Your task to perform on an android device: Empty the shopping cart on costco. Add macbook pro 13 inch to the cart on costco Image 0: 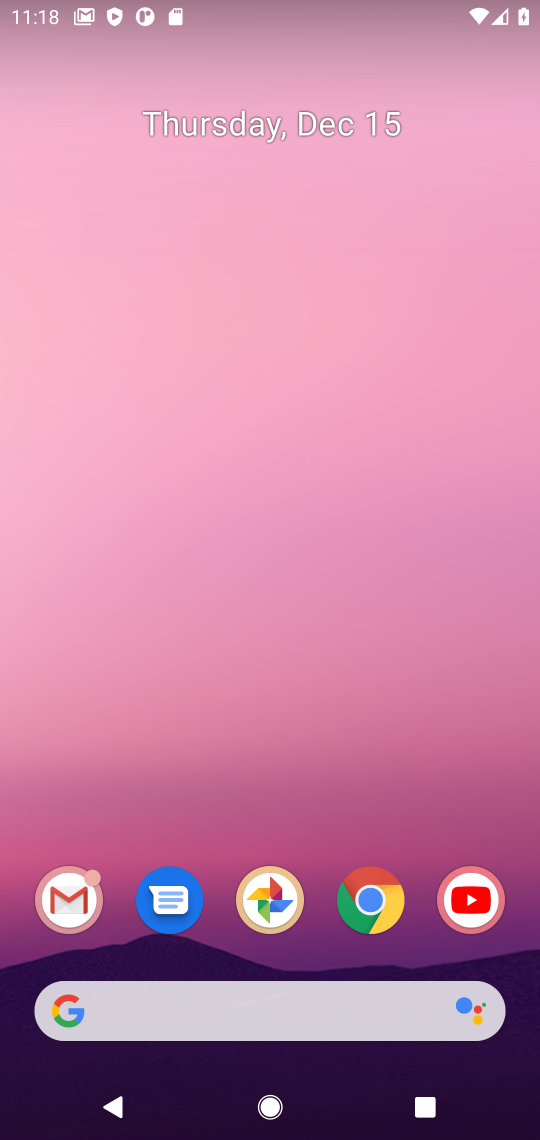
Step 0: click (394, 887)
Your task to perform on an android device: Empty the shopping cart on costco. Add macbook pro 13 inch to the cart on costco Image 1: 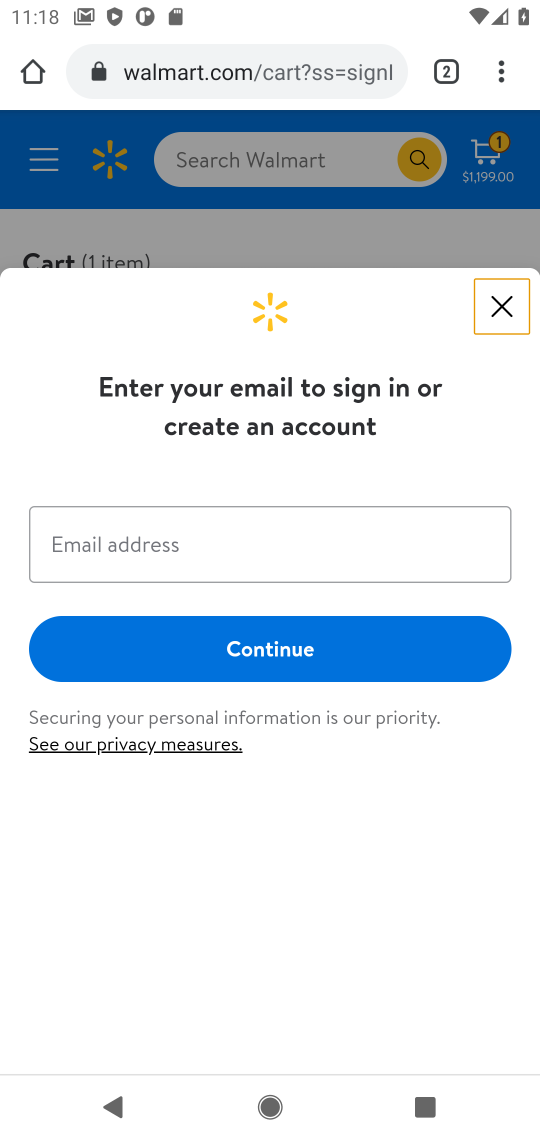
Step 1: click (506, 307)
Your task to perform on an android device: Empty the shopping cart on costco. Add macbook pro 13 inch to the cart on costco Image 2: 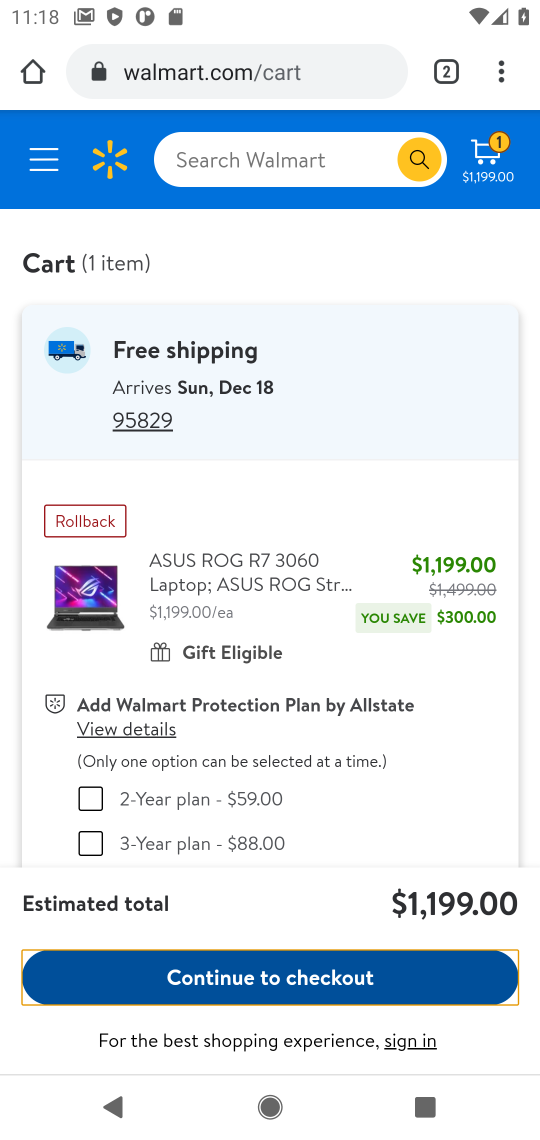
Step 2: click (276, 164)
Your task to perform on an android device: Empty the shopping cart on costco. Add macbook pro 13 inch to the cart on costco Image 3: 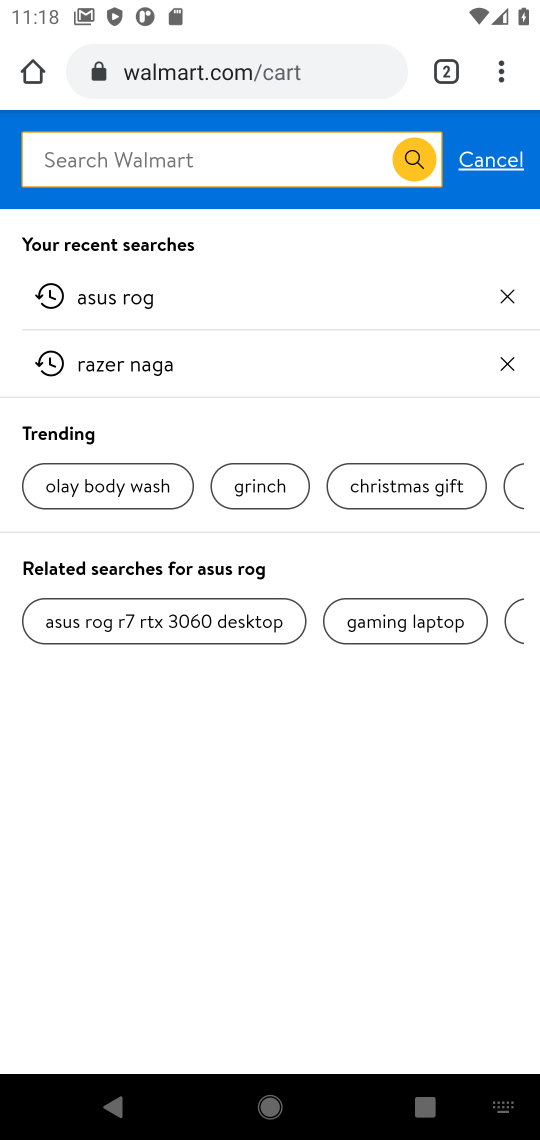
Step 3: click (294, 59)
Your task to perform on an android device: Empty the shopping cart on costco. Add macbook pro 13 inch to the cart on costco Image 4: 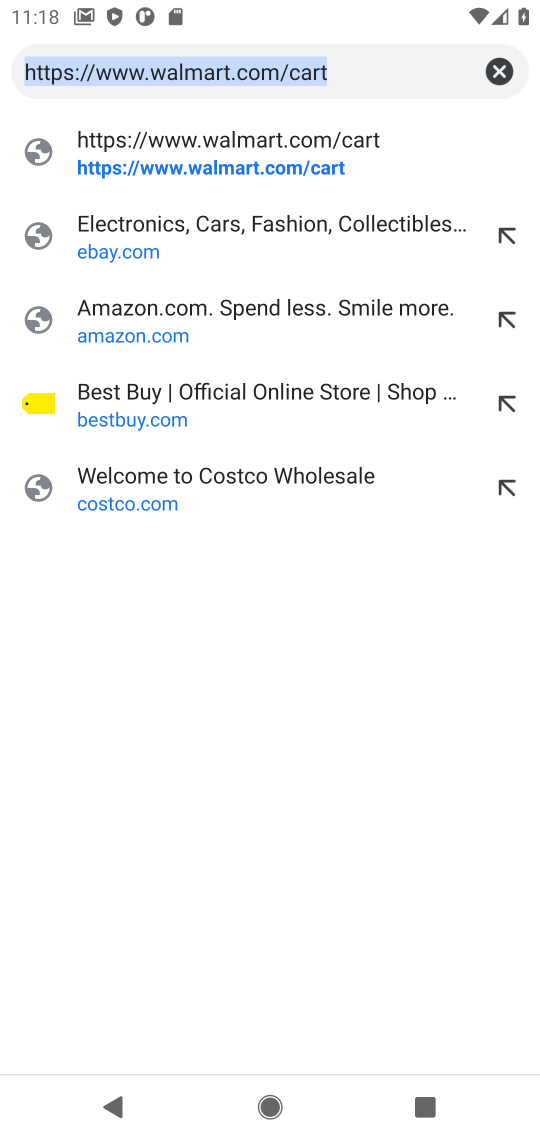
Step 4: click (281, 482)
Your task to perform on an android device: Empty the shopping cart on costco. Add macbook pro 13 inch to the cart on costco Image 5: 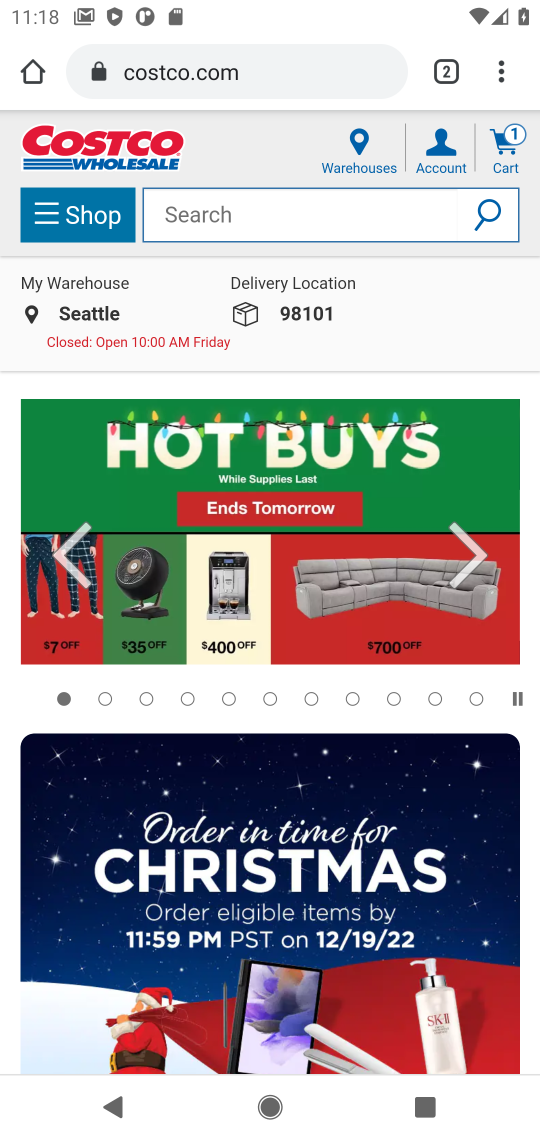
Step 5: click (380, 229)
Your task to perform on an android device: Empty the shopping cart on costco. Add macbook pro 13 inch to the cart on costco Image 6: 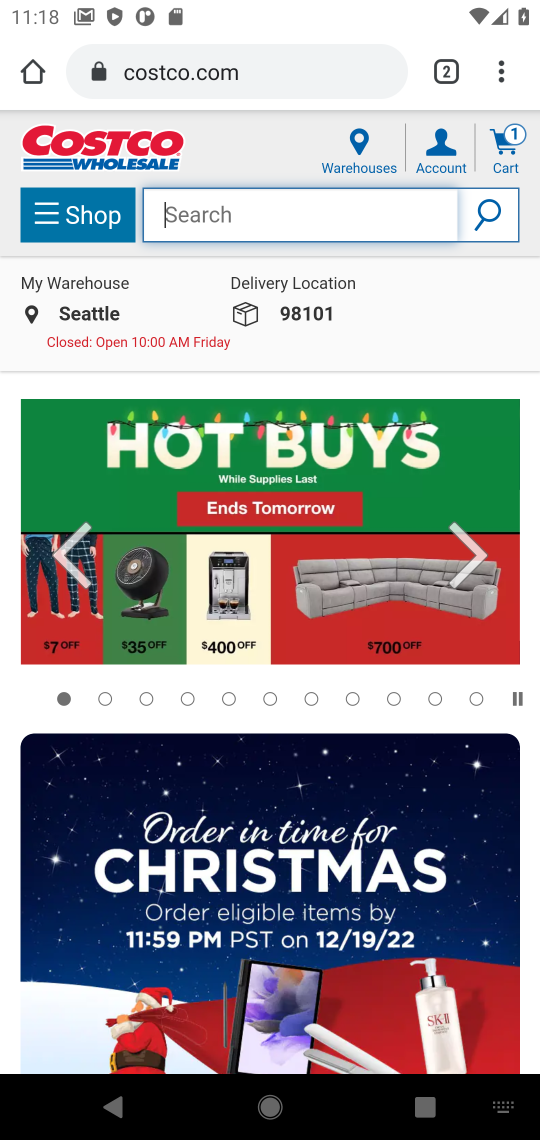
Step 6: click (514, 154)
Your task to perform on an android device: Empty the shopping cart on costco. Add macbook pro 13 inch to the cart on costco Image 7: 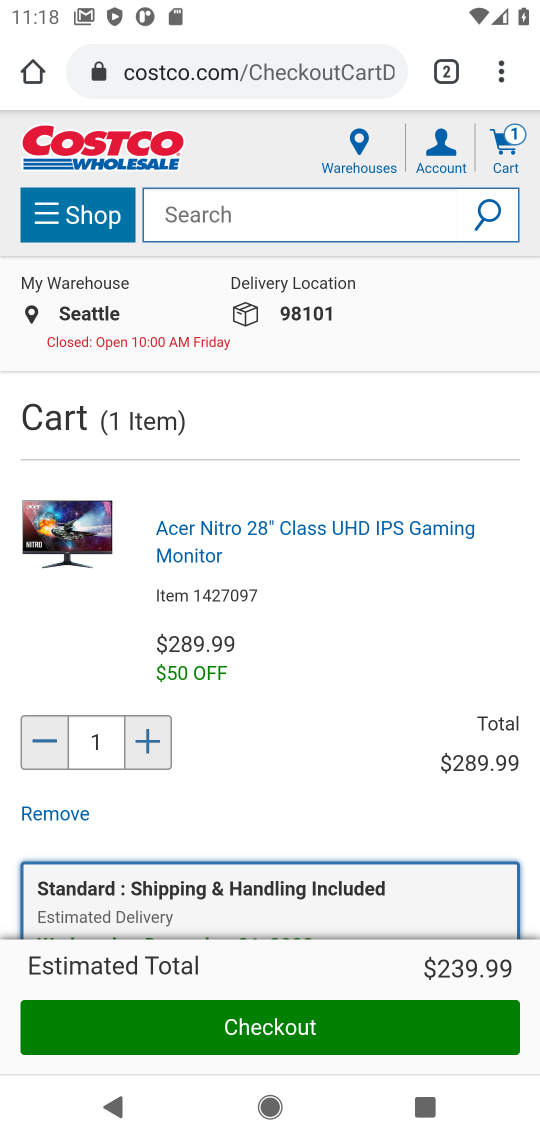
Step 7: drag from (234, 761) to (168, 377)
Your task to perform on an android device: Empty the shopping cart on costco. Add macbook pro 13 inch to the cart on costco Image 8: 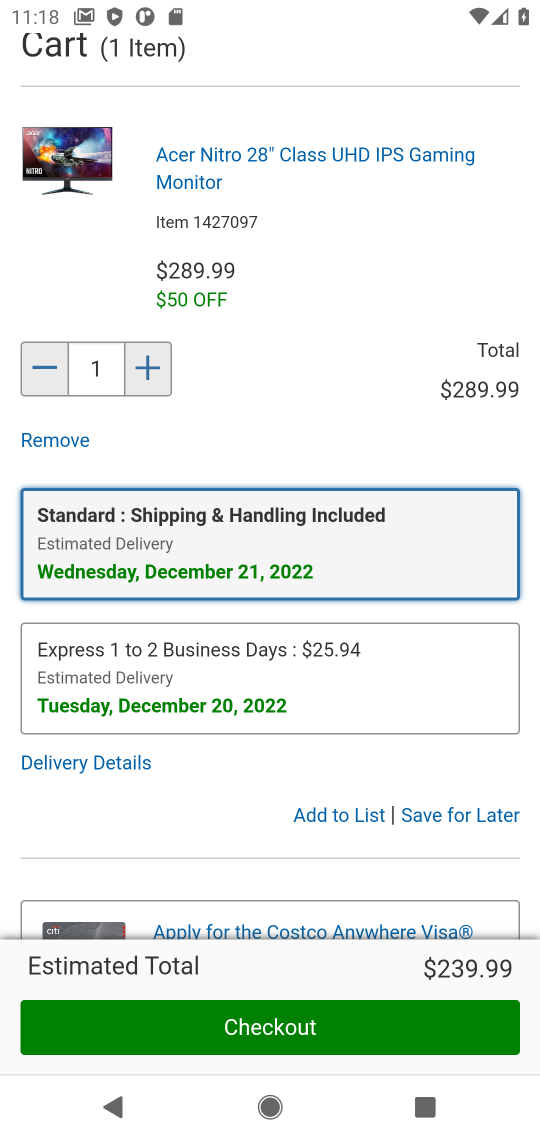
Step 8: click (53, 442)
Your task to perform on an android device: Empty the shopping cart on costco. Add macbook pro 13 inch to the cart on costco Image 9: 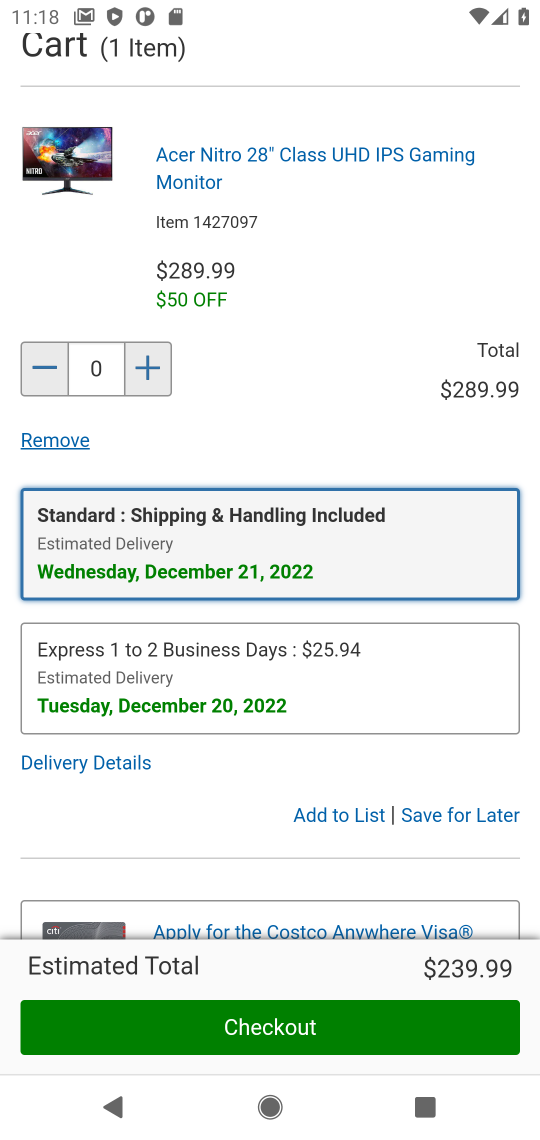
Step 9: click (473, 810)
Your task to perform on an android device: Empty the shopping cart on costco. Add macbook pro 13 inch to the cart on costco Image 10: 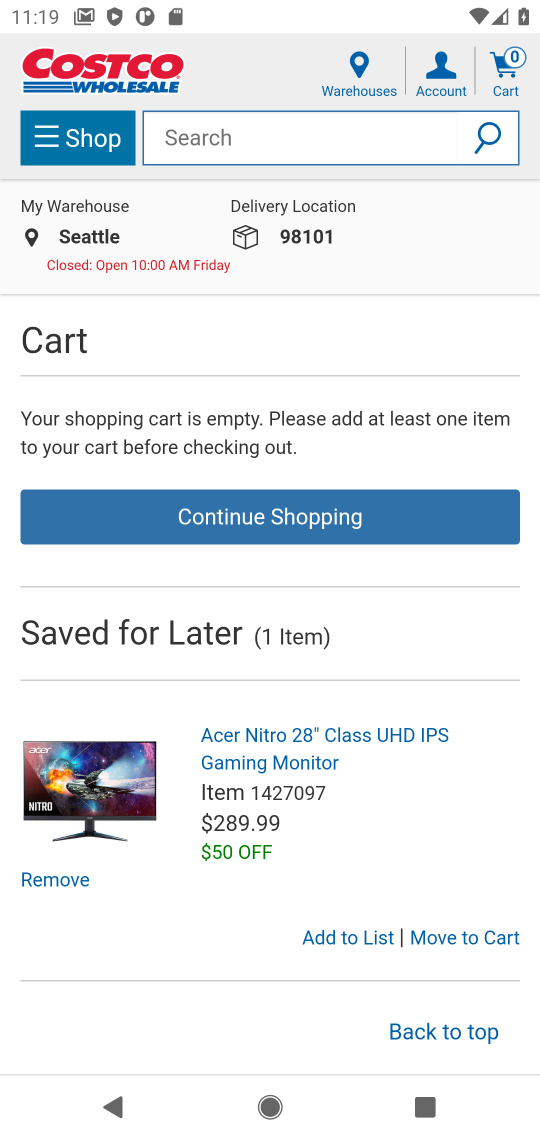
Step 10: click (339, 118)
Your task to perform on an android device: Empty the shopping cart on costco. Add macbook pro 13 inch to the cart on costco Image 11: 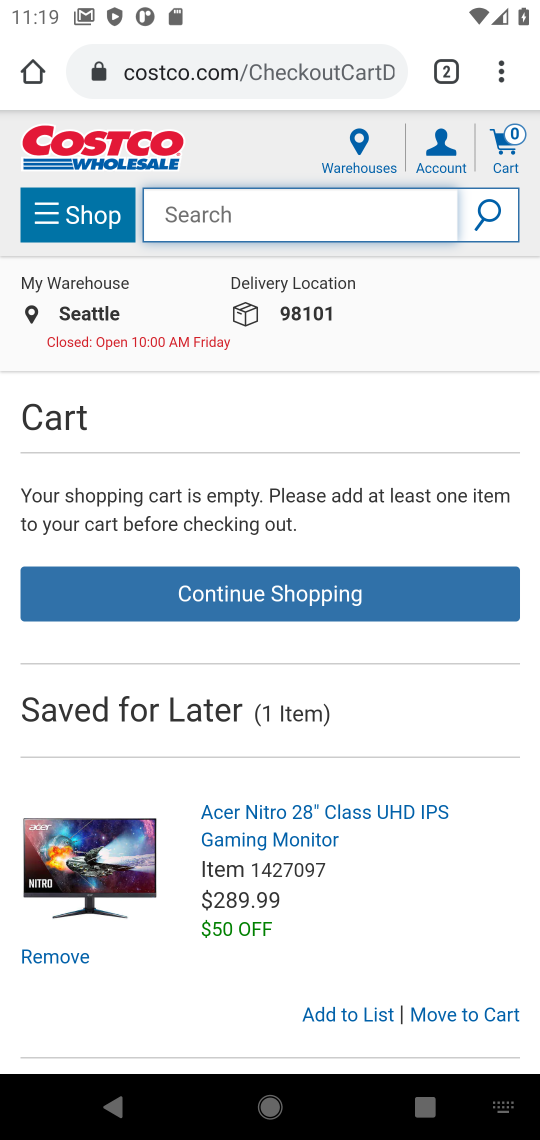
Step 11: press enter
Your task to perform on an android device: Empty the shopping cart on costco. Add macbook pro 13 inch to the cart on costco Image 12: 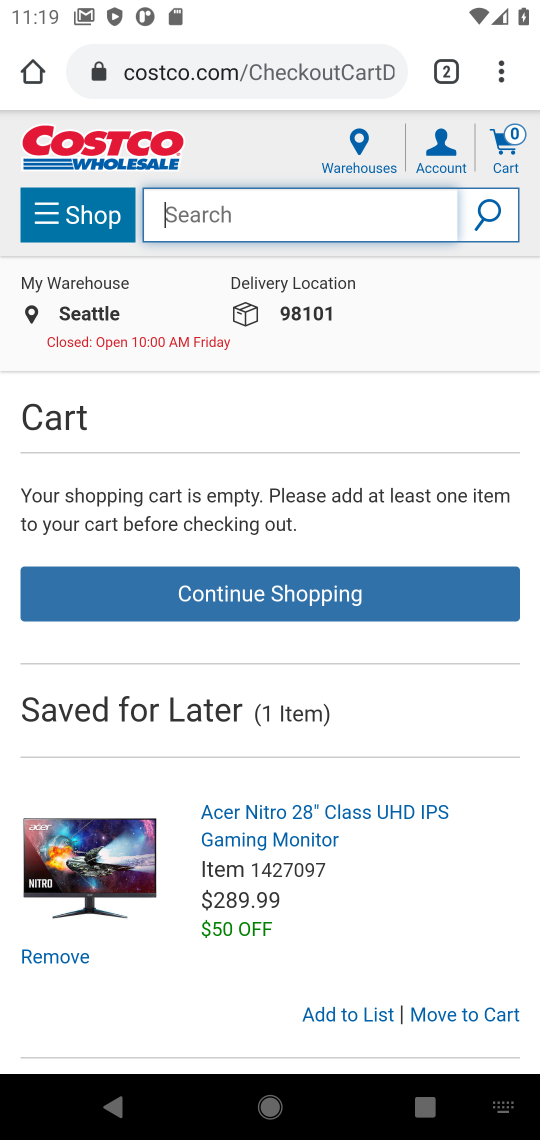
Step 12: type "macbook pro 13 inch"
Your task to perform on an android device: Empty the shopping cart on costco. Add macbook pro 13 inch to the cart on costco Image 13: 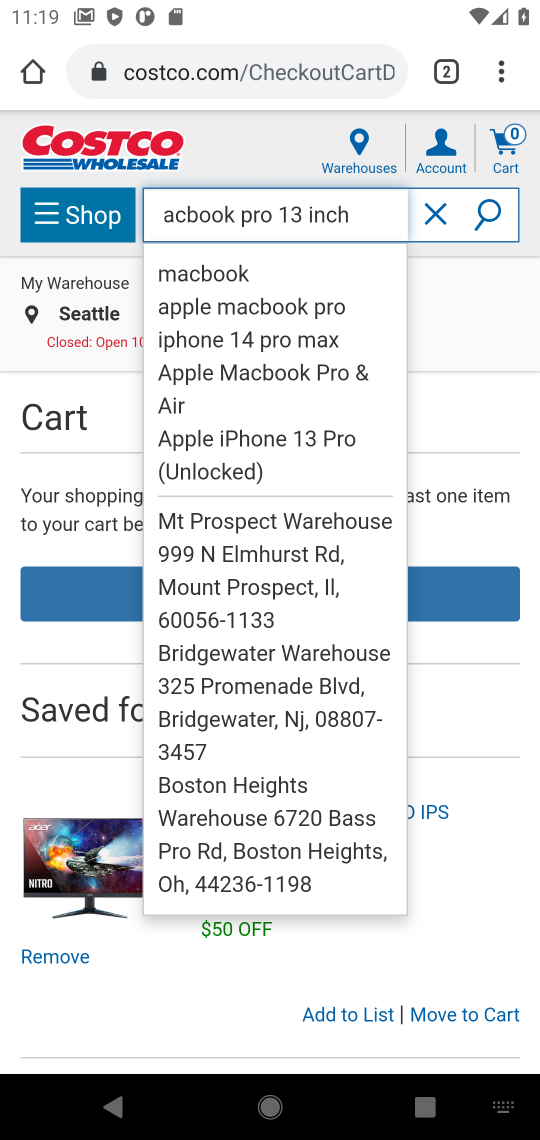
Step 13: click (487, 220)
Your task to perform on an android device: Empty the shopping cart on costco. Add macbook pro 13 inch to the cart on costco Image 14: 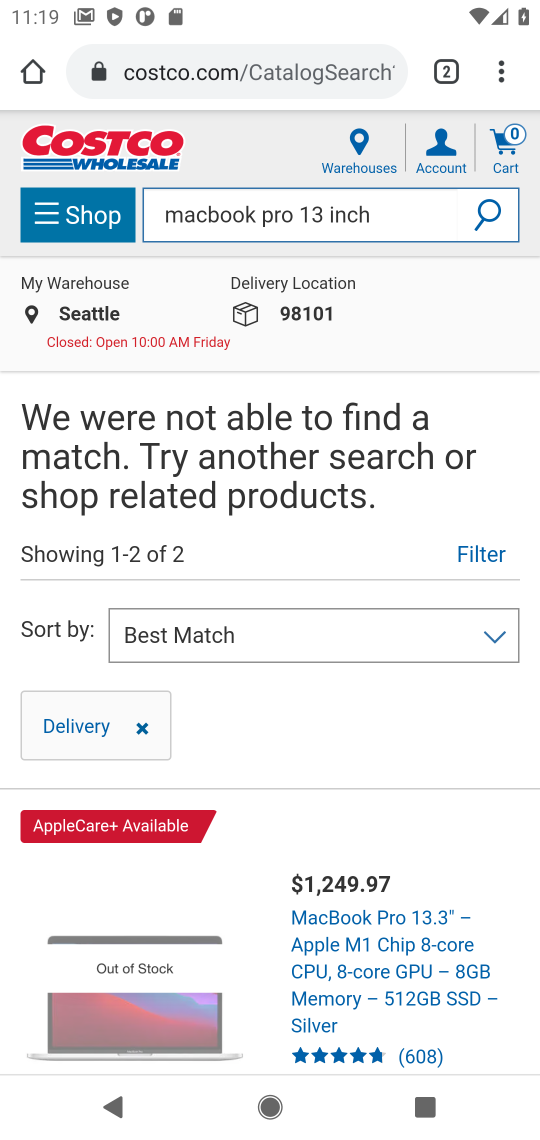
Step 14: task complete